Your task to perform on an android device: show emergency info Image 0: 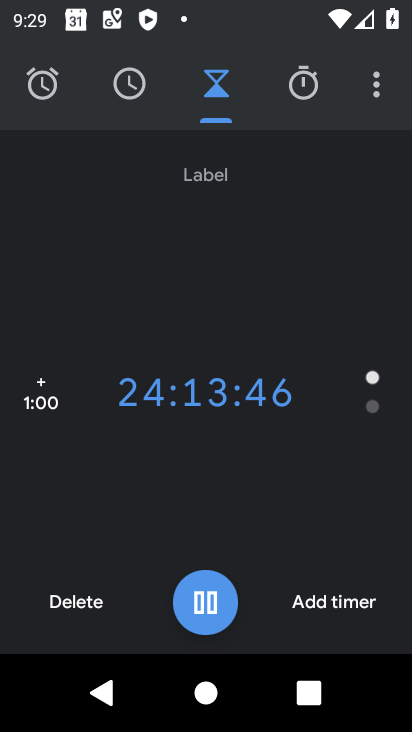
Step 0: press home button
Your task to perform on an android device: show emergency info Image 1: 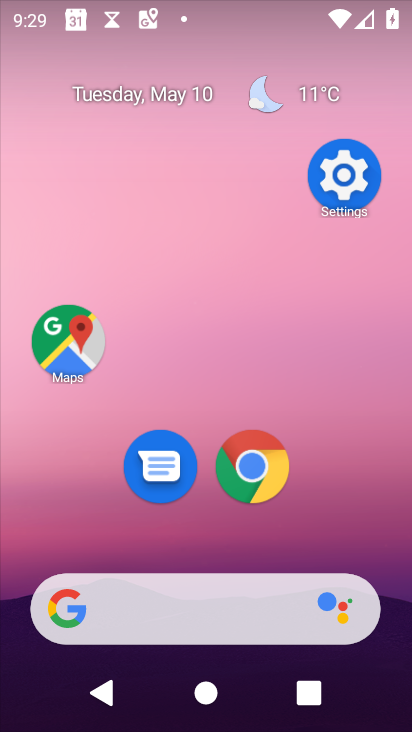
Step 1: drag from (293, 531) to (284, 82)
Your task to perform on an android device: show emergency info Image 2: 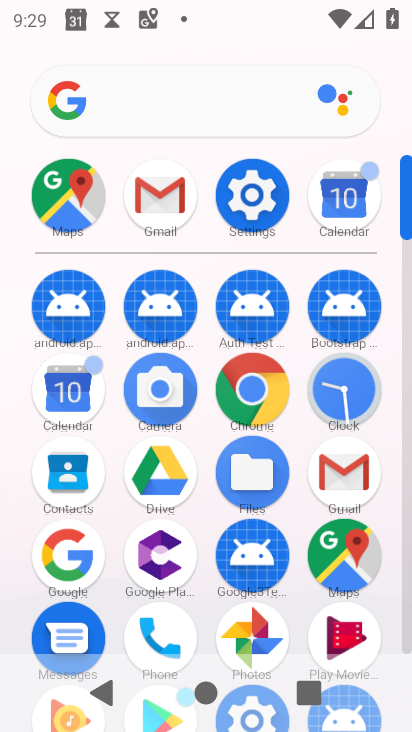
Step 2: click (248, 203)
Your task to perform on an android device: show emergency info Image 3: 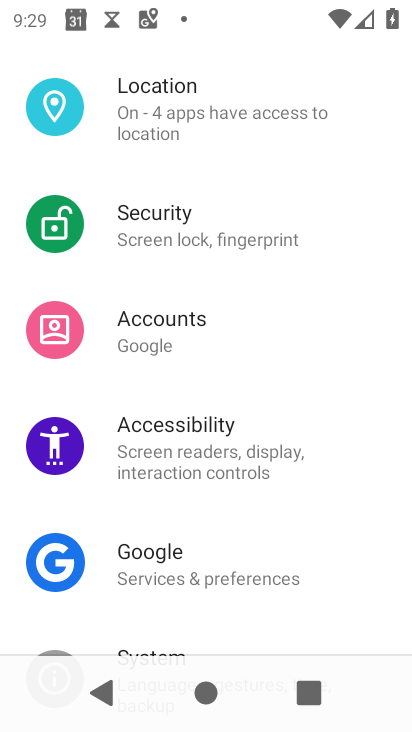
Step 3: drag from (273, 521) to (249, 413)
Your task to perform on an android device: show emergency info Image 4: 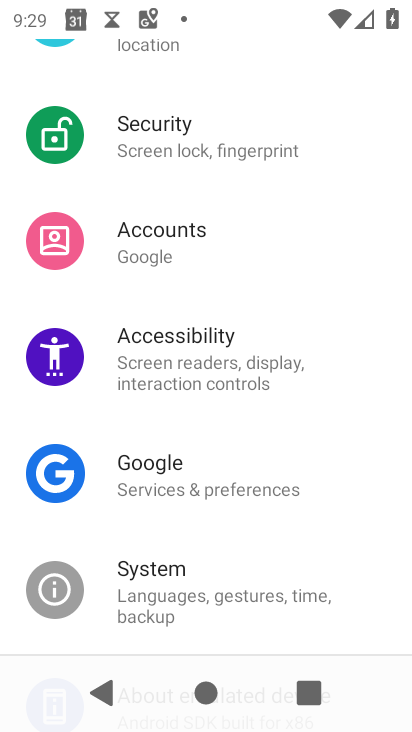
Step 4: drag from (240, 532) to (264, 356)
Your task to perform on an android device: show emergency info Image 5: 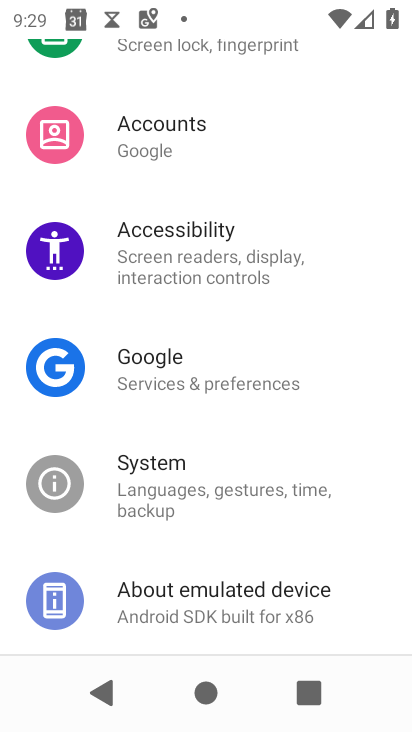
Step 5: click (130, 607)
Your task to perform on an android device: show emergency info Image 6: 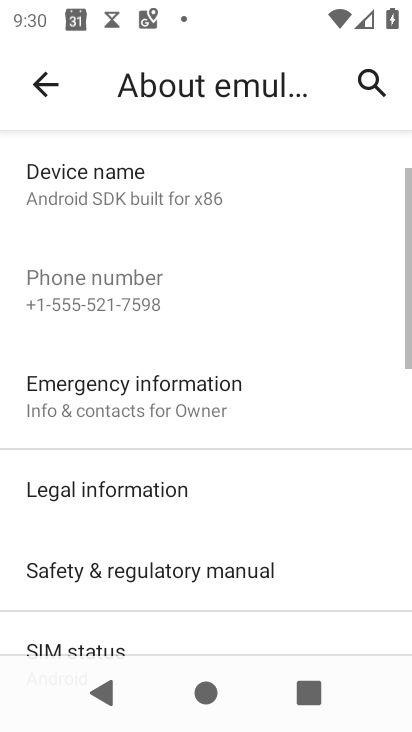
Step 6: click (173, 417)
Your task to perform on an android device: show emergency info Image 7: 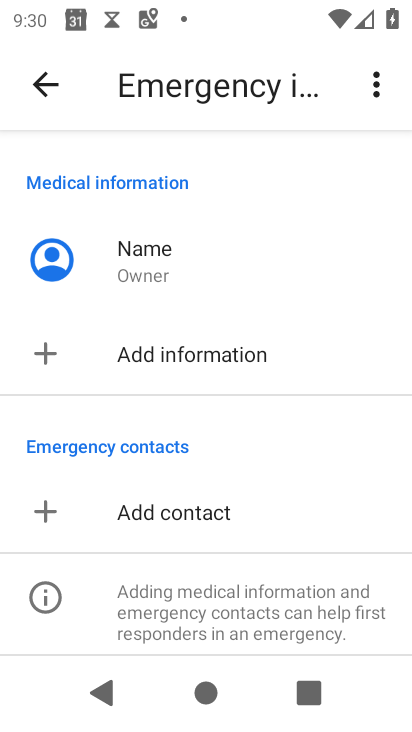
Step 7: task complete